Your task to perform on an android device: change keyboard looks Image 0: 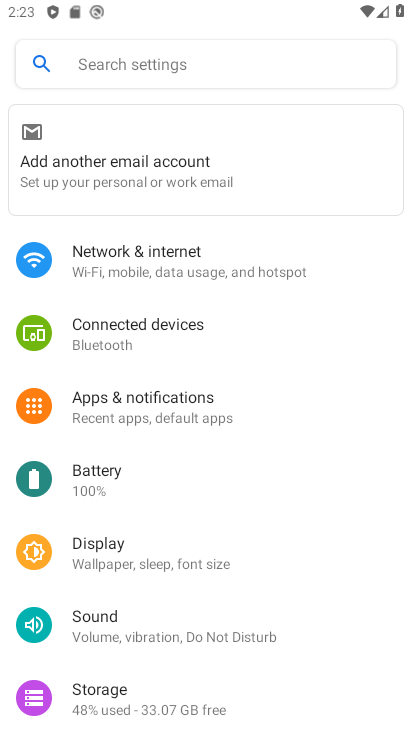
Step 0: press home button
Your task to perform on an android device: change keyboard looks Image 1: 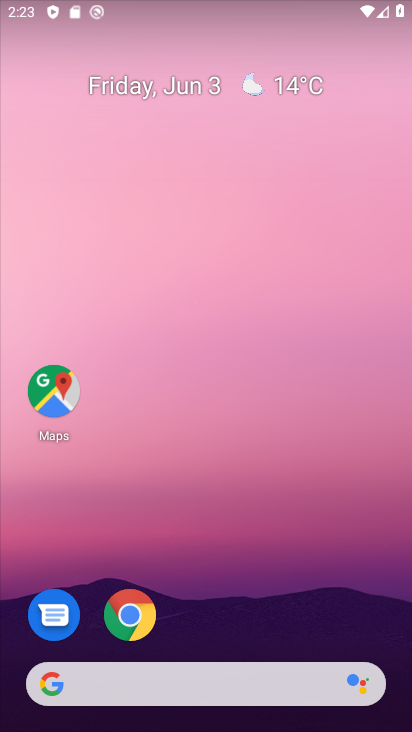
Step 1: drag from (230, 416) to (244, 113)
Your task to perform on an android device: change keyboard looks Image 2: 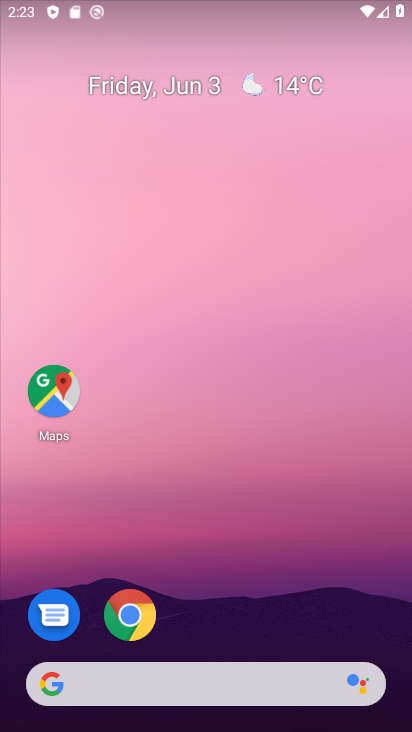
Step 2: drag from (251, 629) to (230, 52)
Your task to perform on an android device: change keyboard looks Image 3: 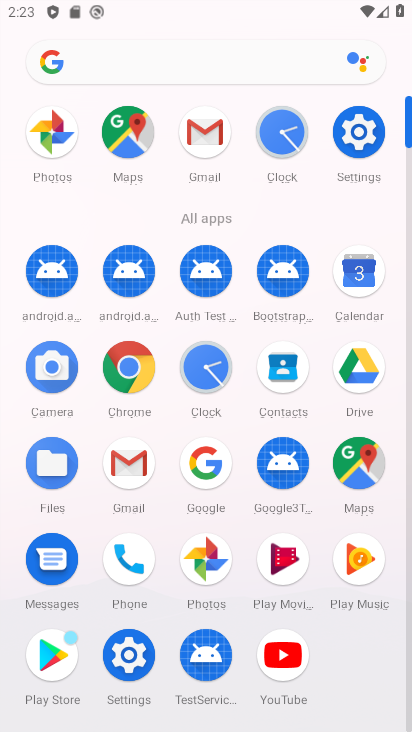
Step 3: click (358, 149)
Your task to perform on an android device: change keyboard looks Image 4: 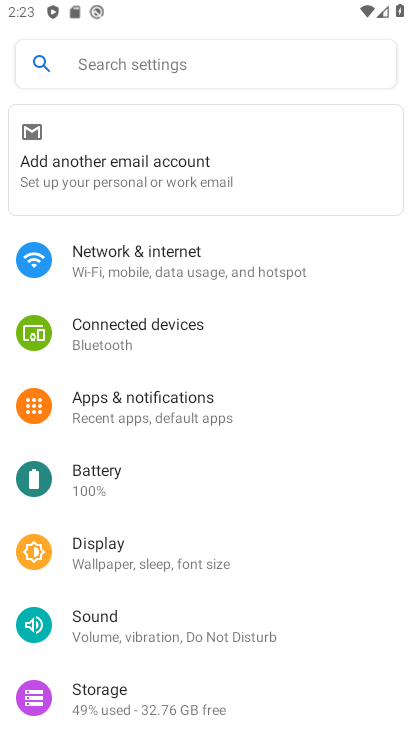
Step 4: drag from (263, 597) to (227, 157)
Your task to perform on an android device: change keyboard looks Image 5: 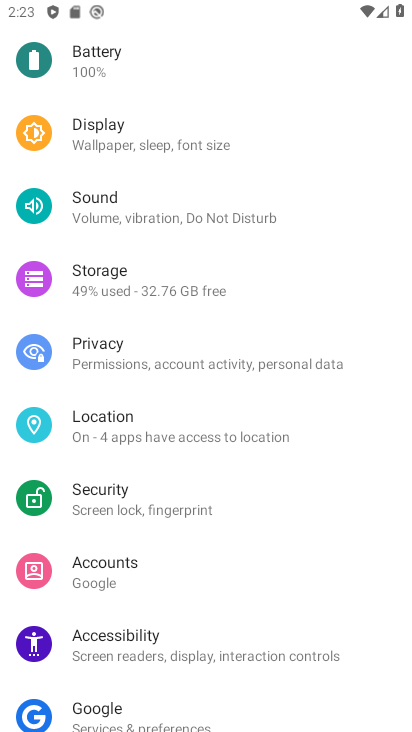
Step 5: drag from (198, 571) to (214, 266)
Your task to perform on an android device: change keyboard looks Image 6: 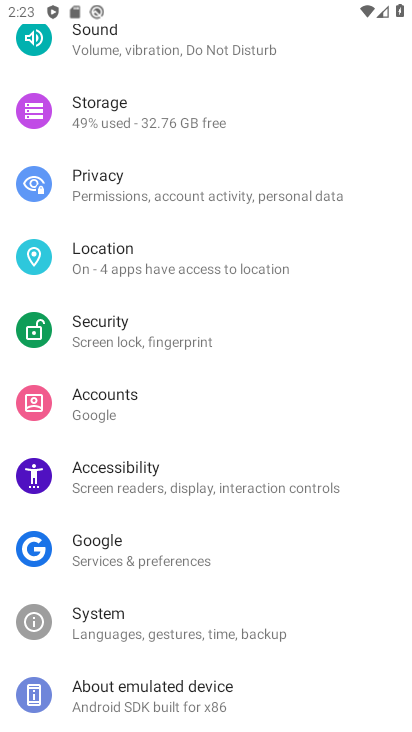
Step 6: click (120, 626)
Your task to perform on an android device: change keyboard looks Image 7: 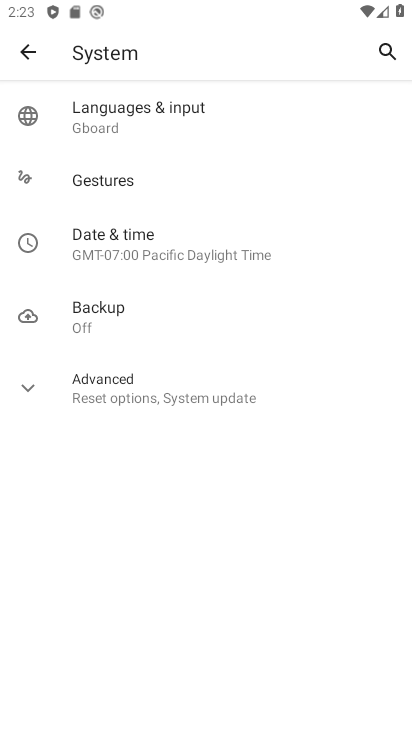
Step 7: click (96, 119)
Your task to perform on an android device: change keyboard looks Image 8: 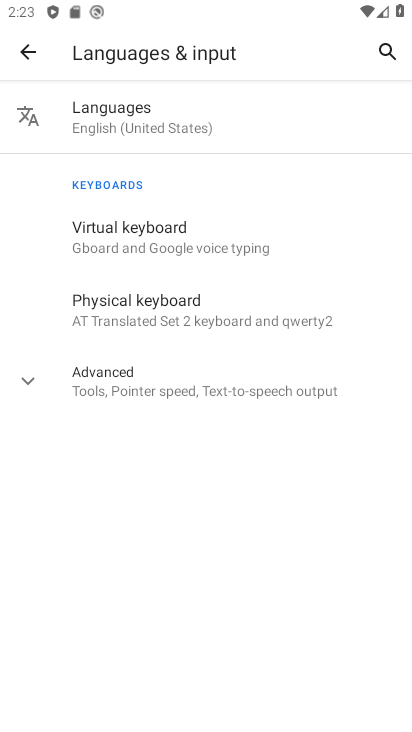
Step 8: click (138, 247)
Your task to perform on an android device: change keyboard looks Image 9: 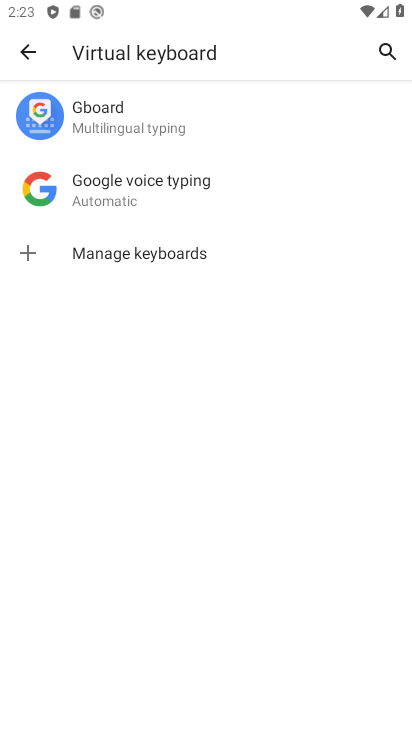
Step 9: click (120, 114)
Your task to perform on an android device: change keyboard looks Image 10: 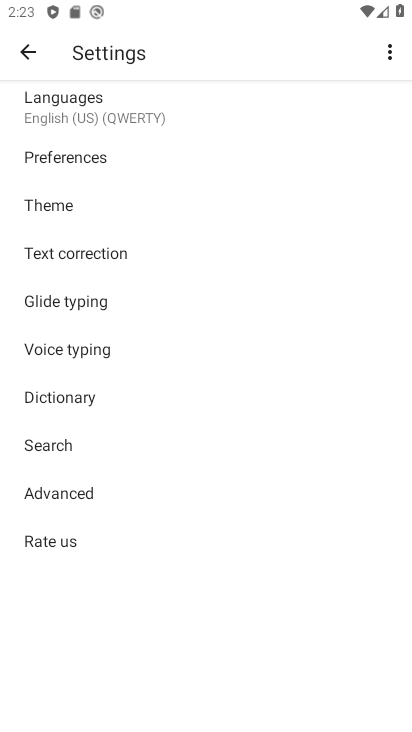
Step 10: click (56, 214)
Your task to perform on an android device: change keyboard looks Image 11: 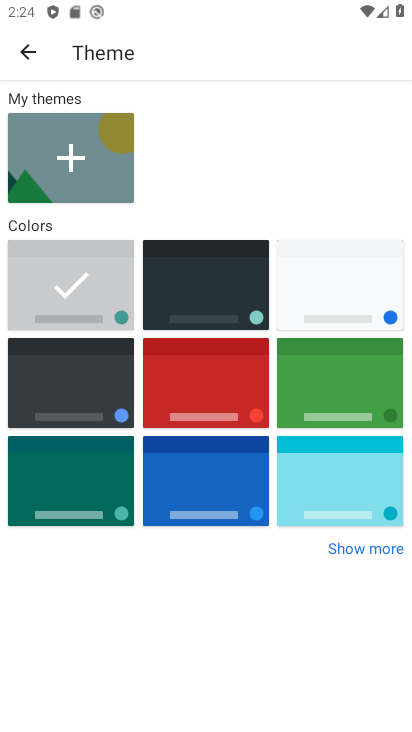
Step 11: click (194, 303)
Your task to perform on an android device: change keyboard looks Image 12: 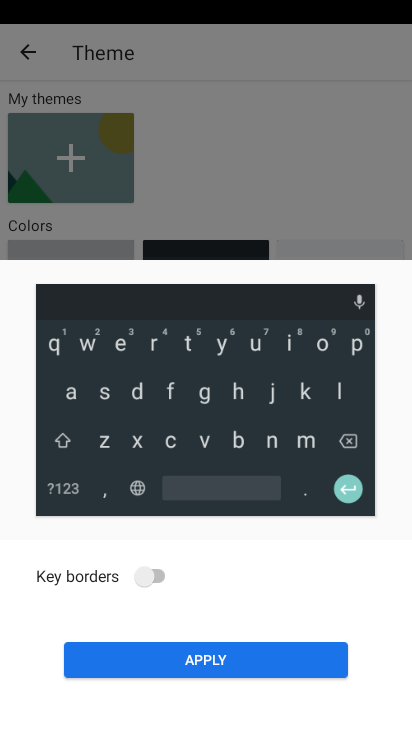
Step 12: click (156, 654)
Your task to perform on an android device: change keyboard looks Image 13: 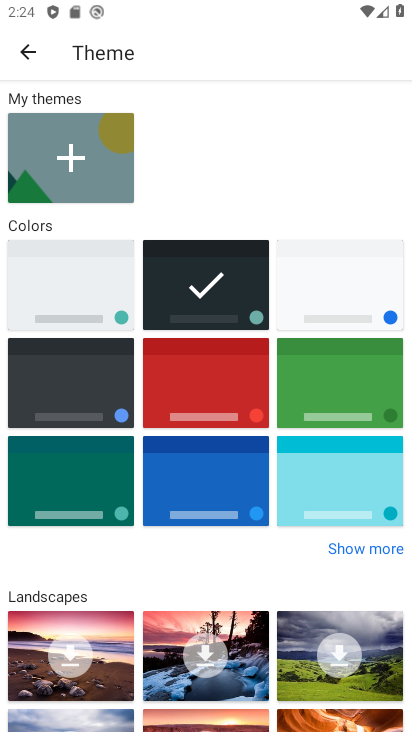
Step 13: task complete